Your task to perform on an android device: Is it going to rain tomorrow? Image 0: 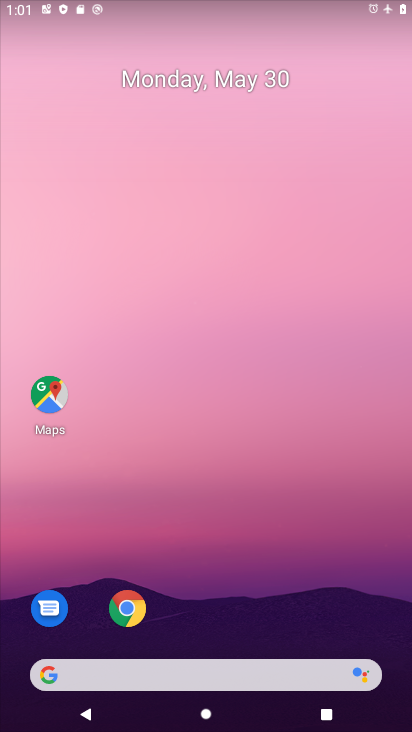
Step 0: click (226, 669)
Your task to perform on an android device: Is it going to rain tomorrow? Image 1: 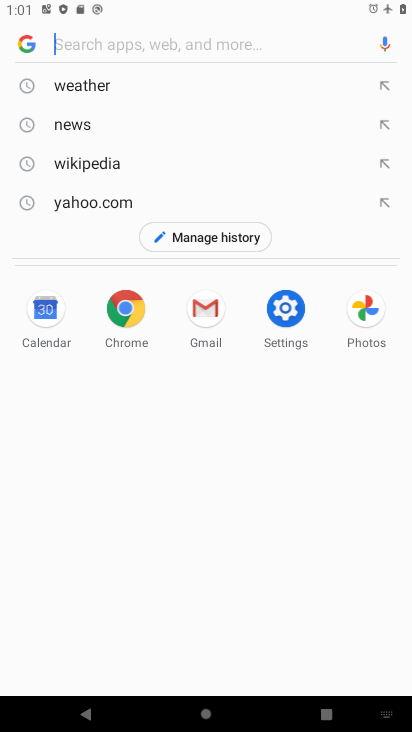
Step 1: click (58, 77)
Your task to perform on an android device: Is it going to rain tomorrow? Image 2: 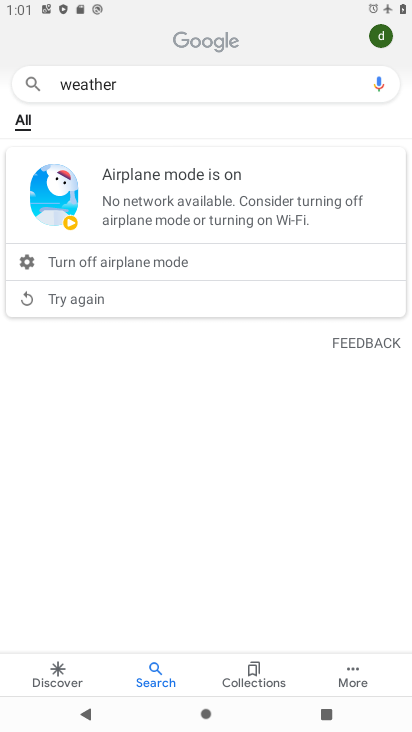
Step 2: drag from (179, 149) to (177, 490)
Your task to perform on an android device: Is it going to rain tomorrow? Image 3: 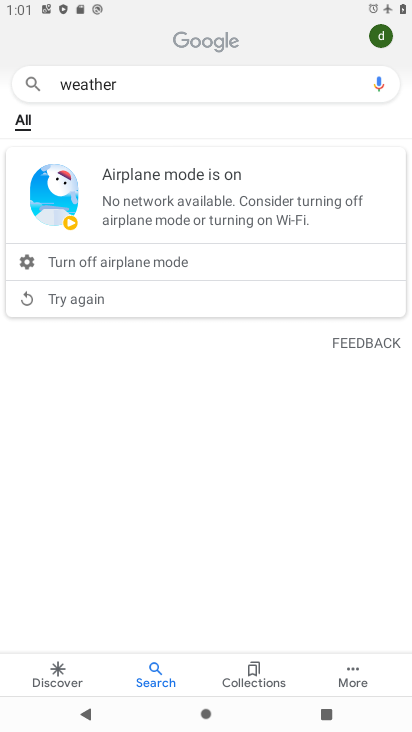
Step 3: drag from (211, 10) to (237, 515)
Your task to perform on an android device: Is it going to rain tomorrow? Image 4: 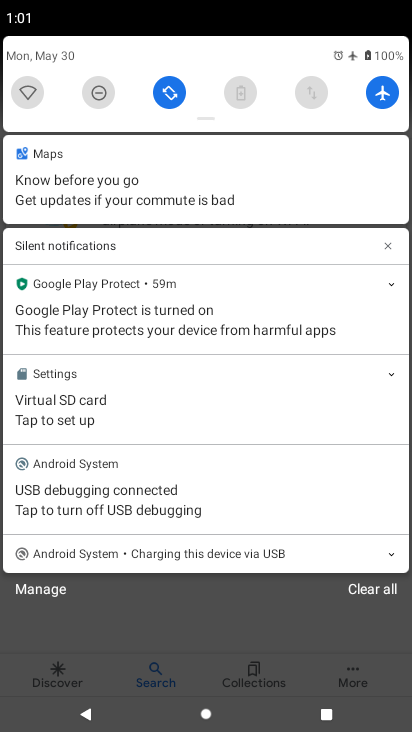
Step 4: click (382, 87)
Your task to perform on an android device: Is it going to rain tomorrow? Image 5: 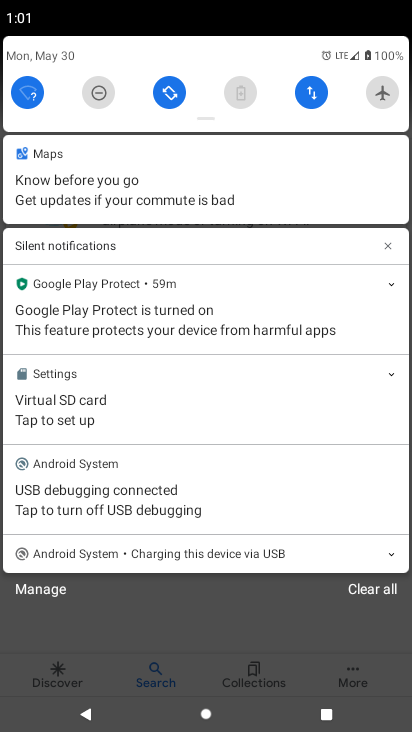
Step 5: drag from (241, 613) to (203, 202)
Your task to perform on an android device: Is it going to rain tomorrow? Image 6: 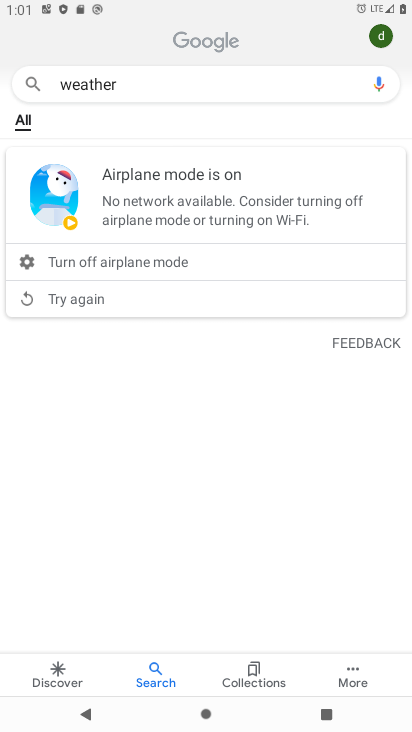
Step 6: click (146, 302)
Your task to perform on an android device: Is it going to rain tomorrow? Image 7: 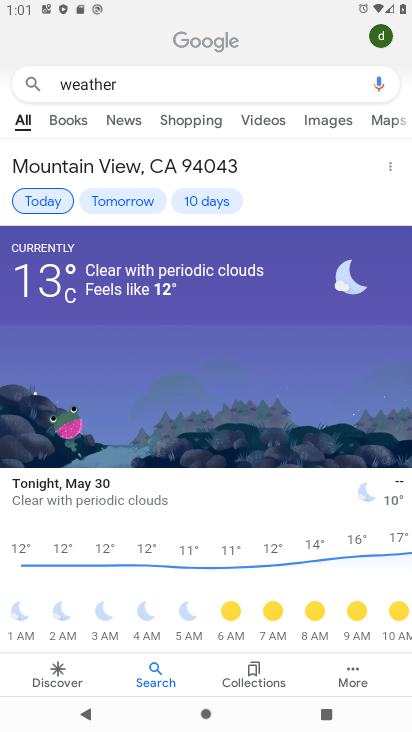
Step 7: click (111, 203)
Your task to perform on an android device: Is it going to rain tomorrow? Image 8: 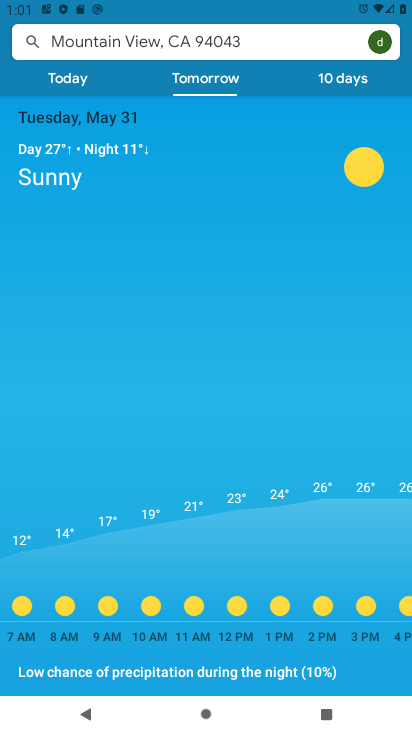
Step 8: drag from (139, 516) to (129, 188)
Your task to perform on an android device: Is it going to rain tomorrow? Image 9: 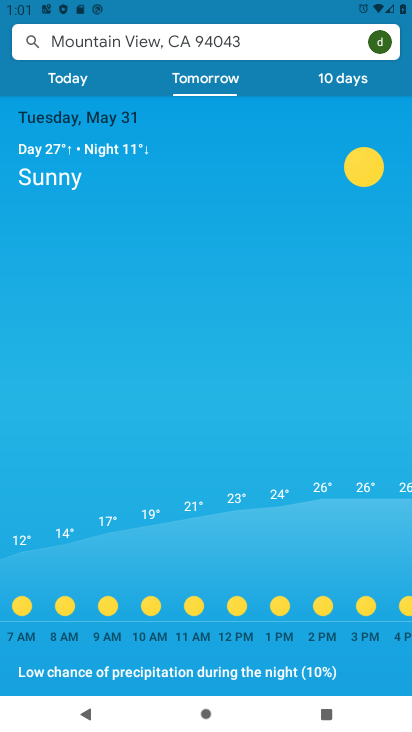
Step 9: drag from (272, 557) to (38, 579)
Your task to perform on an android device: Is it going to rain tomorrow? Image 10: 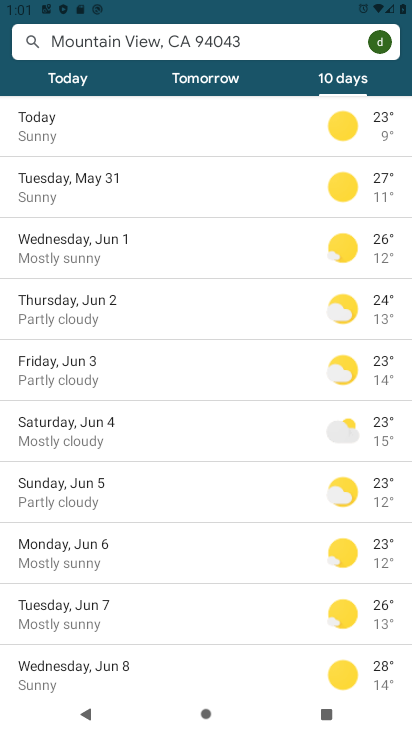
Step 10: drag from (245, 567) to (233, 216)
Your task to perform on an android device: Is it going to rain tomorrow? Image 11: 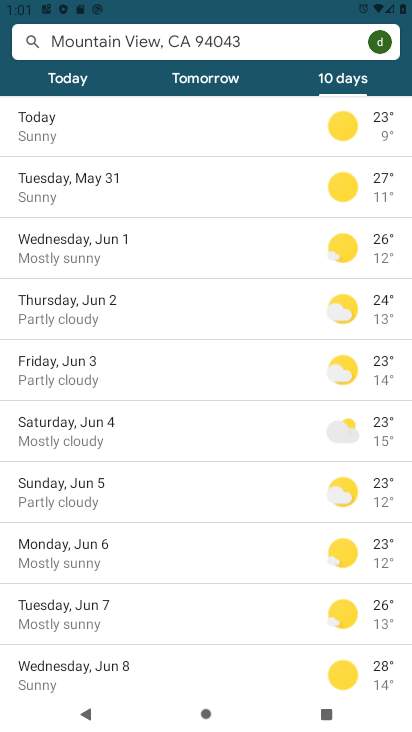
Step 11: drag from (81, 281) to (404, 323)
Your task to perform on an android device: Is it going to rain tomorrow? Image 12: 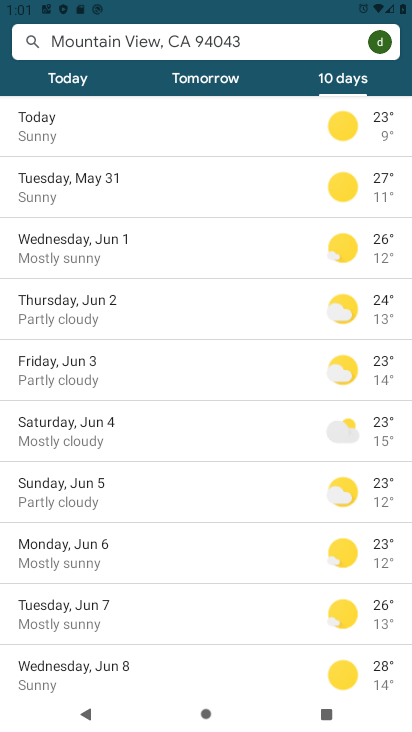
Step 12: click (203, 71)
Your task to perform on an android device: Is it going to rain tomorrow? Image 13: 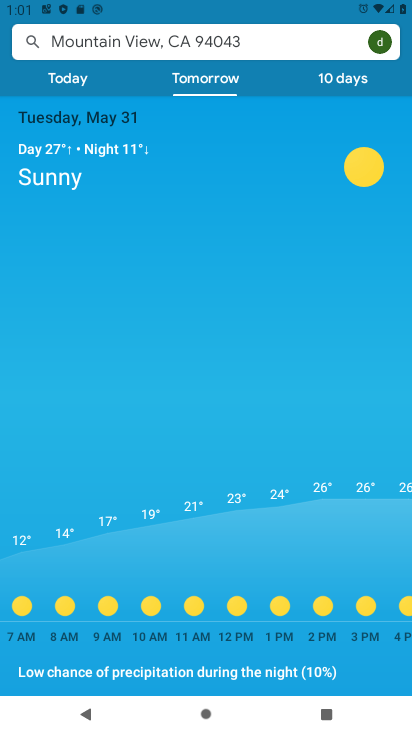
Step 13: task complete